Your task to perform on an android device: check battery use Image 0: 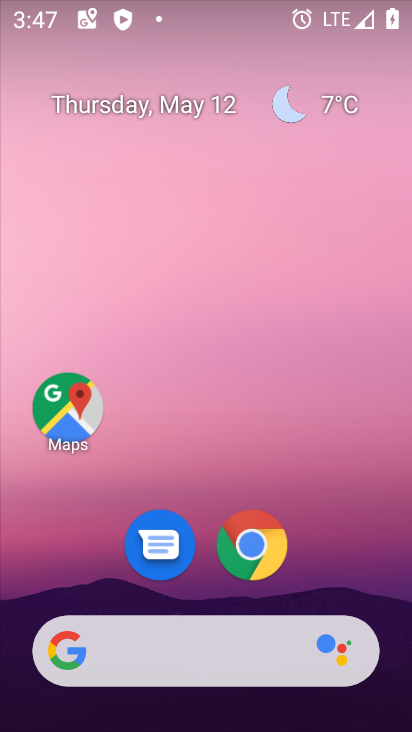
Step 0: drag from (396, 645) to (327, 198)
Your task to perform on an android device: check battery use Image 1: 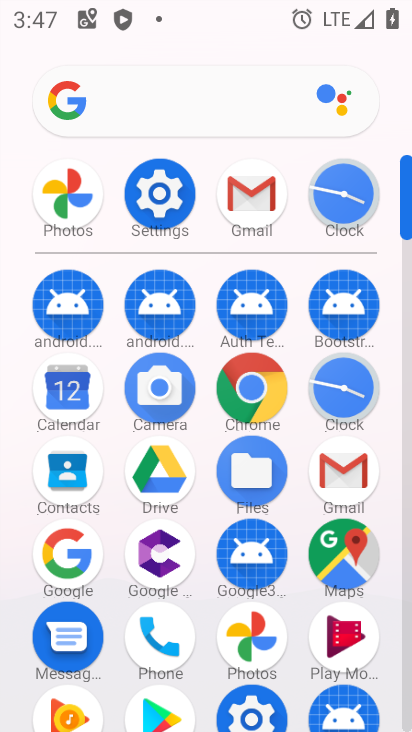
Step 1: click (406, 712)
Your task to perform on an android device: check battery use Image 2: 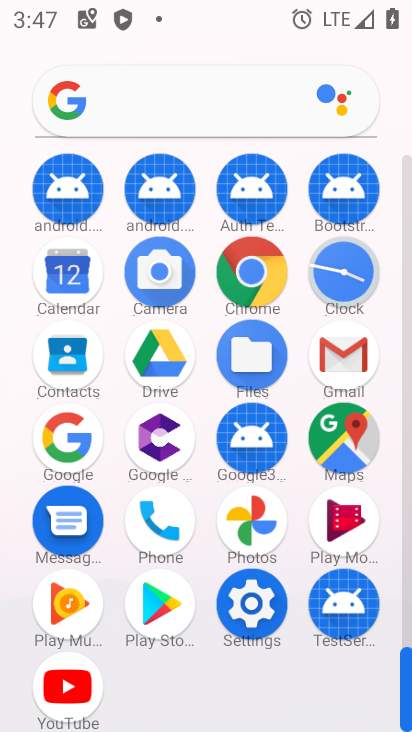
Step 2: click (249, 599)
Your task to perform on an android device: check battery use Image 3: 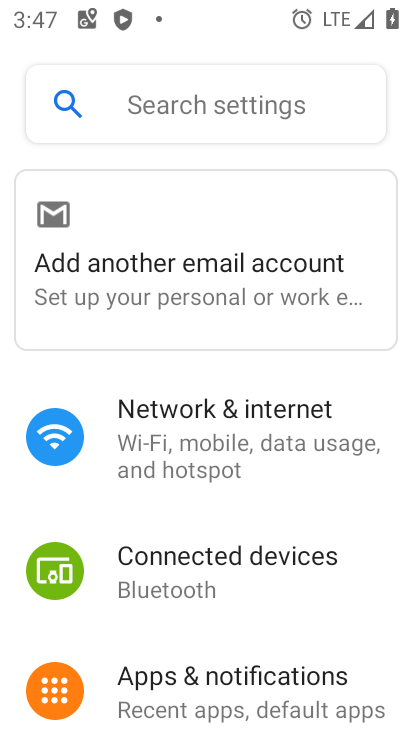
Step 3: drag from (223, 656) to (262, 55)
Your task to perform on an android device: check battery use Image 4: 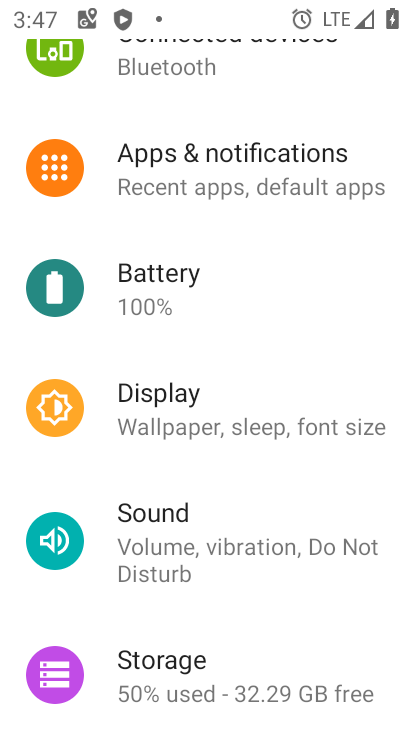
Step 4: click (147, 283)
Your task to perform on an android device: check battery use Image 5: 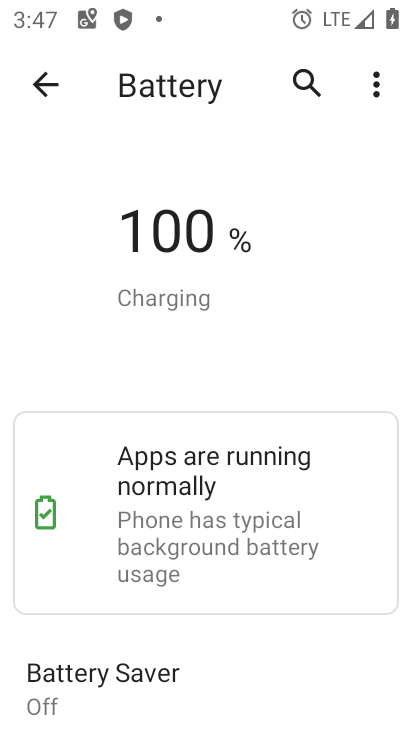
Step 5: drag from (324, 649) to (322, 28)
Your task to perform on an android device: check battery use Image 6: 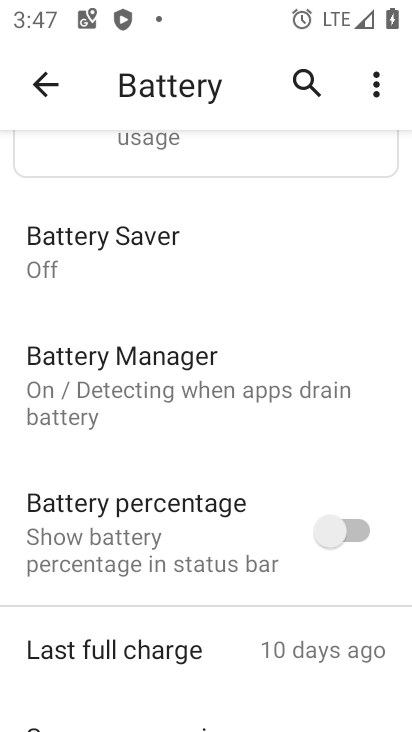
Step 6: drag from (259, 592) to (258, 106)
Your task to perform on an android device: check battery use Image 7: 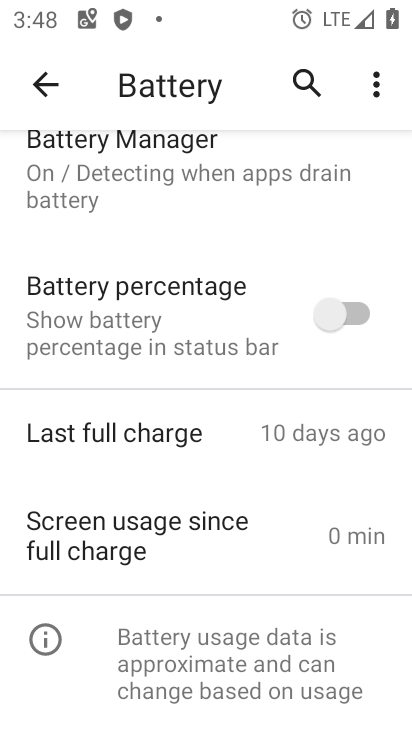
Step 7: click (372, 95)
Your task to perform on an android device: check battery use Image 8: 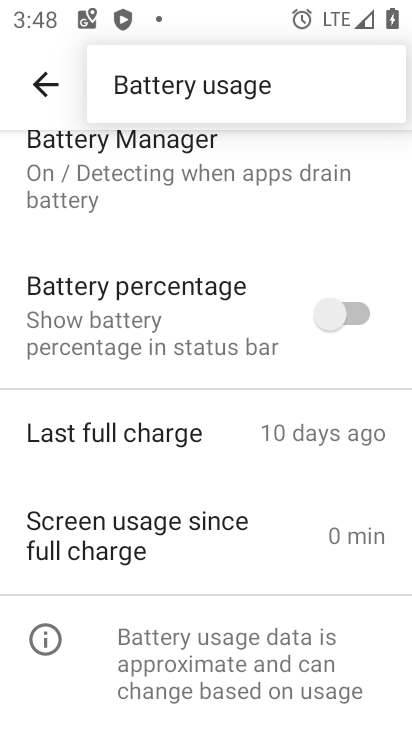
Step 8: click (186, 93)
Your task to perform on an android device: check battery use Image 9: 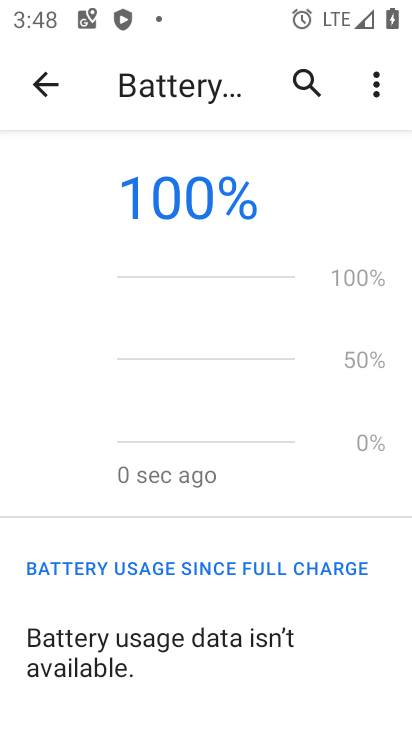
Step 9: task complete